Your task to perform on an android device: turn off notifications in google photos Image 0: 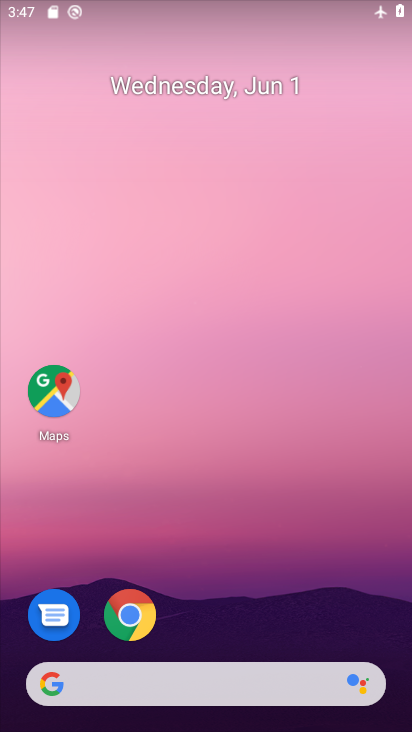
Step 0: drag from (276, 490) to (251, 135)
Your task to perform on an android device: turn off notifications in google photos Image 1: 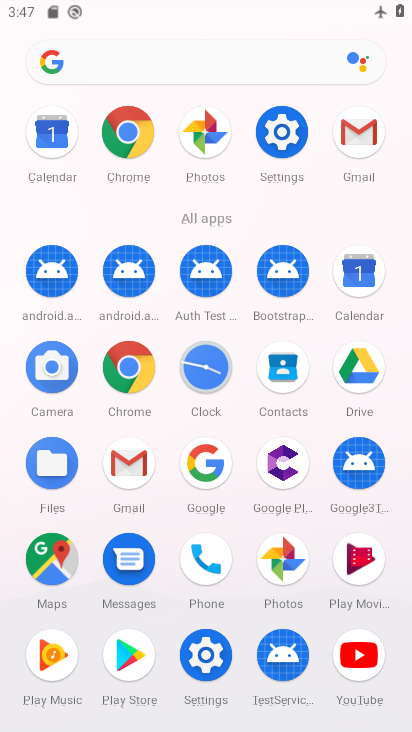
Step 1: click (206, 130)
Your task to perform on an android device: turn off notifications in google photos Image 2: 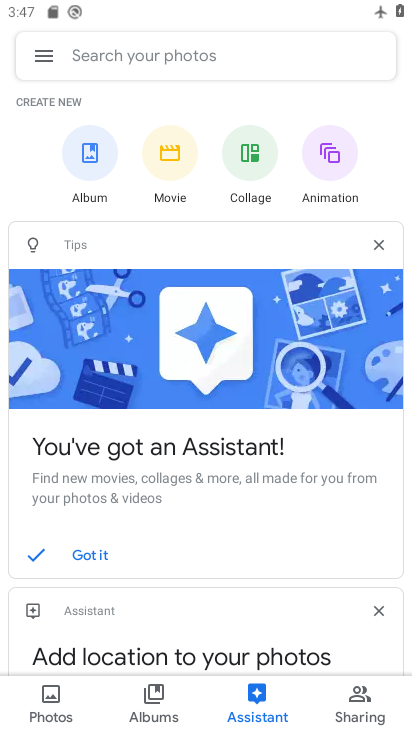
Step 2: click (41, 62)
Your task to perform on an android device: turn off notifications in google photos Image 3: 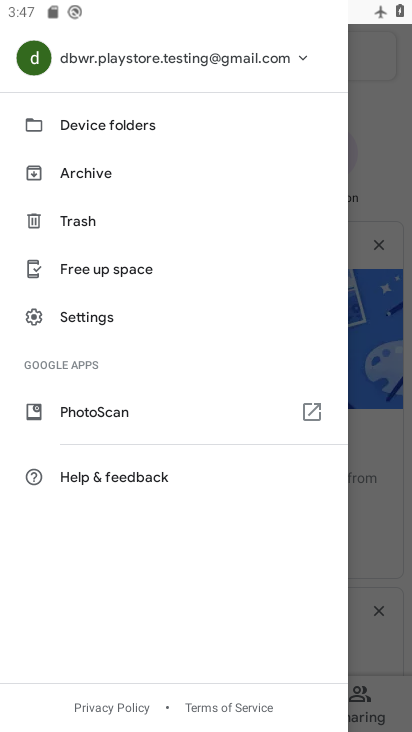
Step 3: click (97, 324)
Your task to perform on an android device: turn off notifications in google photos Image 4: 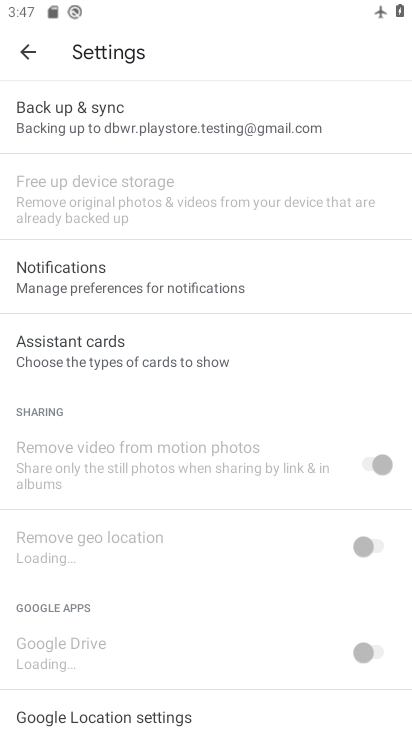
Step 4: click (124, 279)
Your task to perform on an android device: turn off notifications in google photos Image 5: 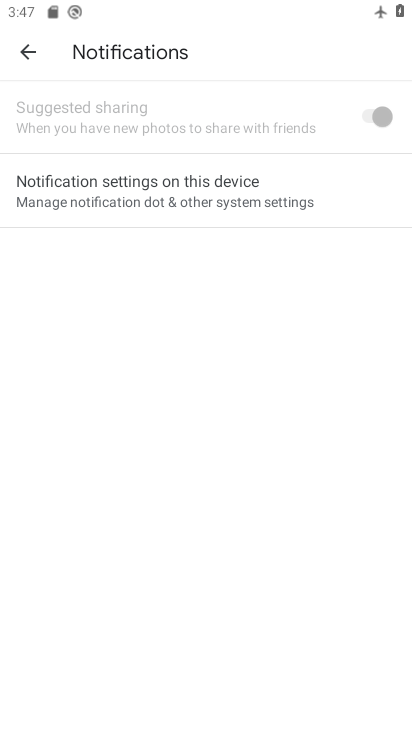
Step 5: click (180, 187)
Your task to perform on an android device: turn off notifications in google photos Image 6: 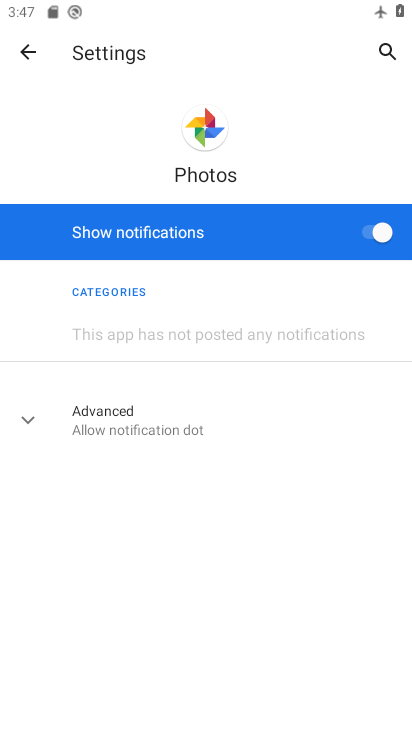
Step 6: click (397, 221)
Your task to perform on an android device: turn off notifications in google photos Image 7: 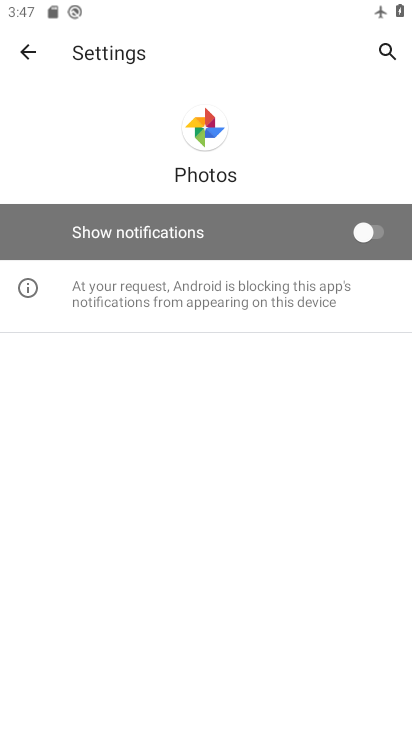
Step 7: task complete